Your task to perform on an android device: Go to battery settings Image 0: 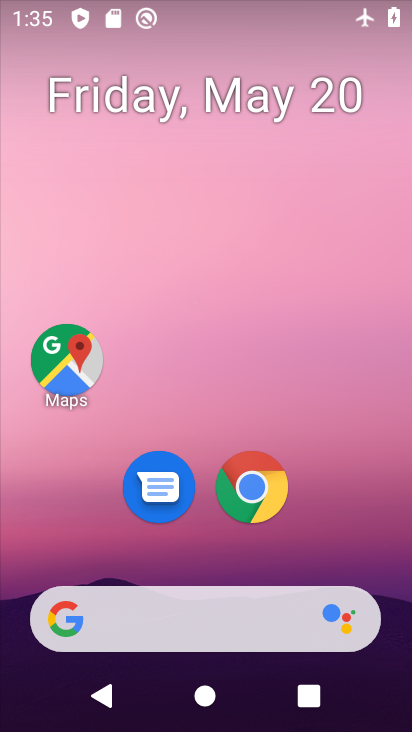
Step 0: drag from (398, 546) to (300, 84)
Your task to perform on an android device: Go to battery settings Image 1: 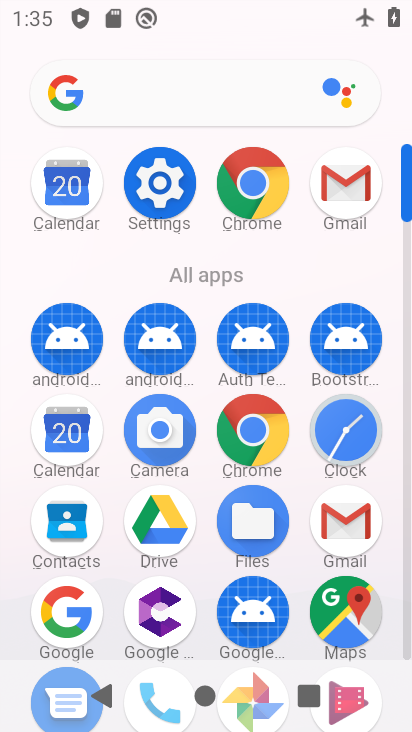
Step 1: click (145, 204)
Your task to perform on an android device: Go to battery settings Image 2: 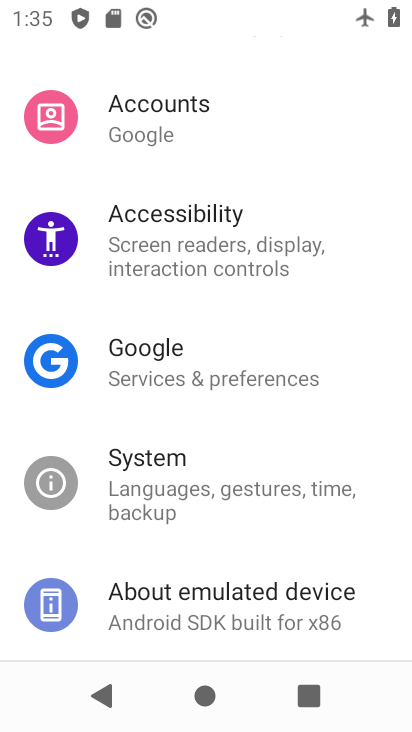
Step 2: drag from (214, 537) to (164, 192)
Your task to perform on an android device: Go to battery settings Image 3: 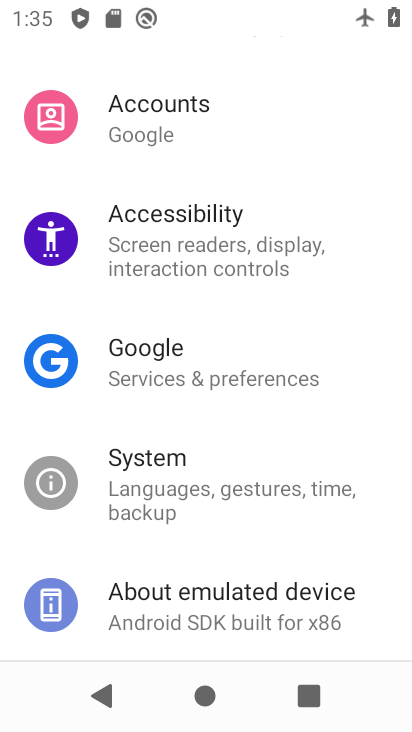
Step 3: drag from (198, 483) to (185, 181)
Your task to perform on an android device: Go to battery settings Image 4: 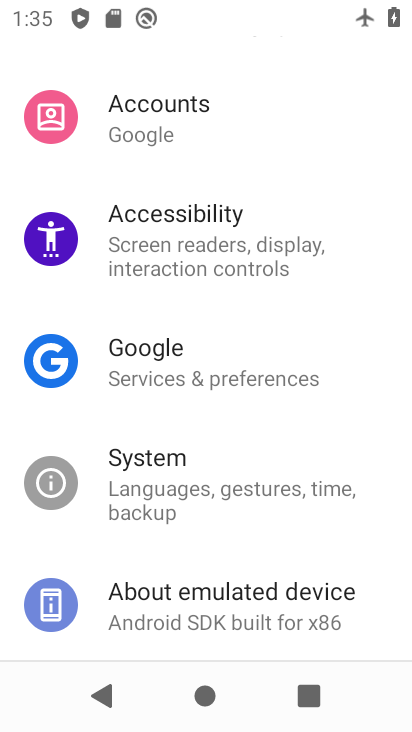
Step 4: drag from (156, 258) to (140, 572)
Your task to perform on an android device: Go to battery settings Image 5: 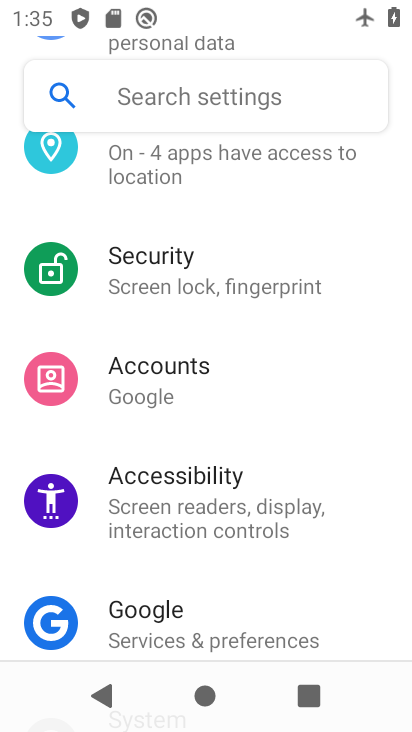
Step 5: drag from (186, 398) to (188, 539)
Your task to perform on an android device: Go to battery settings Image 6: 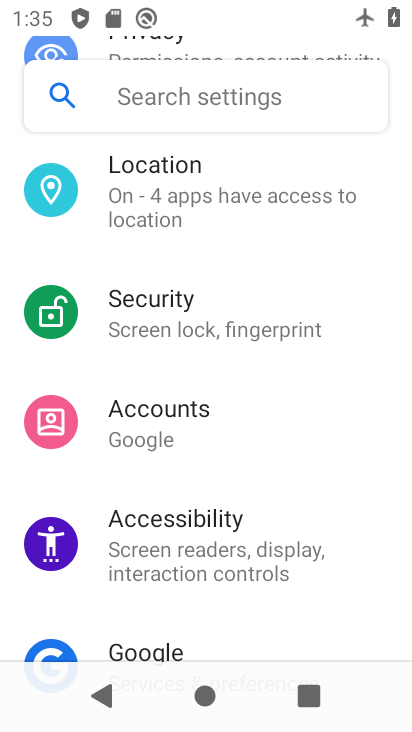
Step 6: drag from (203, 170) to (178, 588)
Your task to perform on an android device: Go to battery settings Image 7: 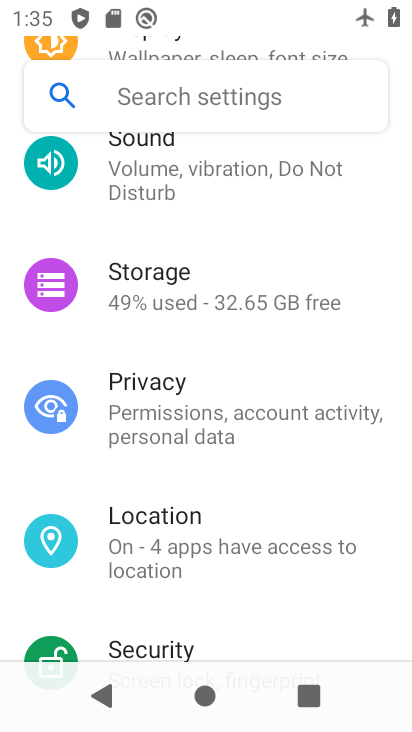
Step 7: drag from (188, 241) to (136, 654)
Your task to perform on an android device: Go to battery settings Image 8: 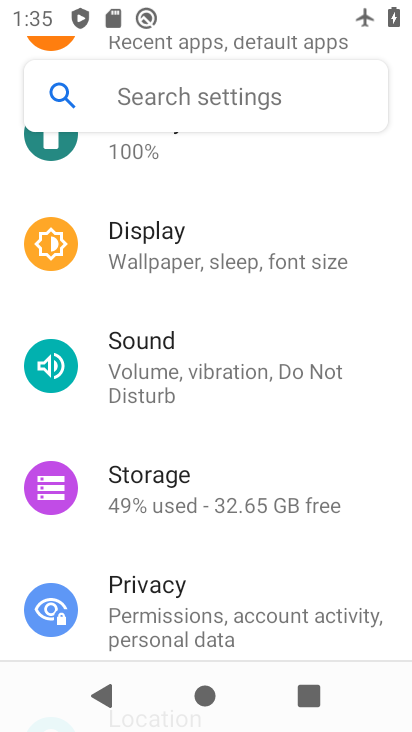
Step 8: drag from (150, 227) to (129, 617)
Your task to perform on an android device: Go to battery settings Image 9: 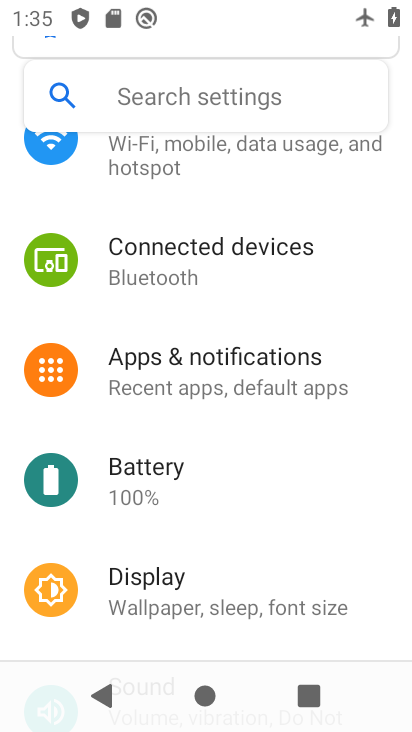
Step 9: click (132, 482)
Your task to perform on an android device: Go to battery settings Image 10: 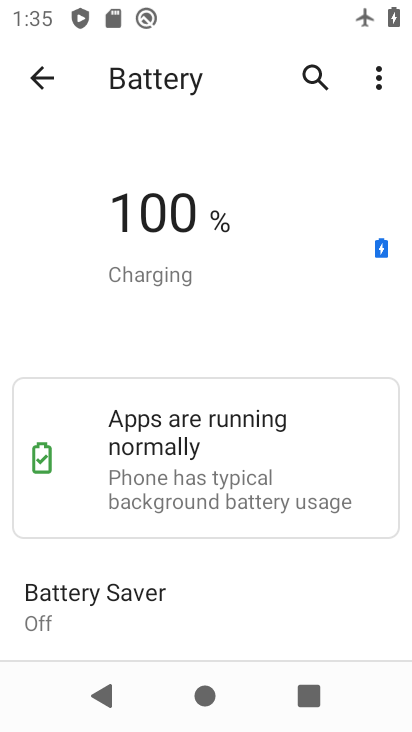
Step 10: task complete